Your task to perform on an android device: Open settings Image 0: 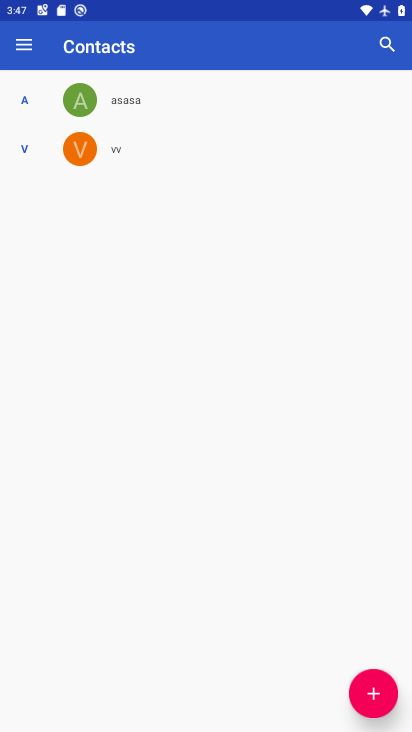
Step 0: press home button
Your task to perform on an android device: Open settings Image 1: 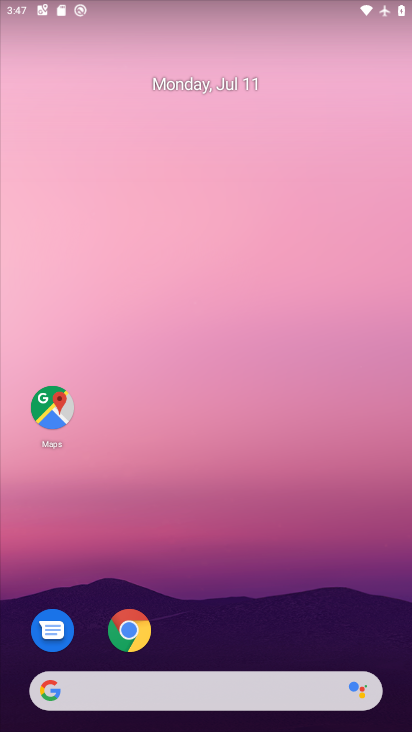
Step 1: drag from (236, 581) to (232, 71)
Your task to perform on an android device: Open settings Image 2: 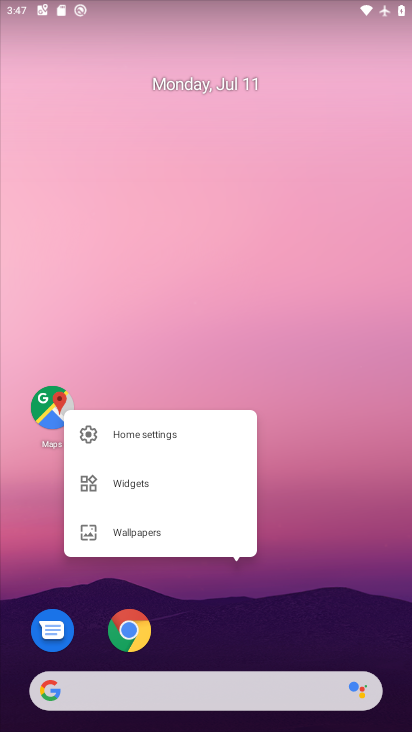
Step 2: click (249, 268)
Your task to perform on an android device: Open settings Image 3: 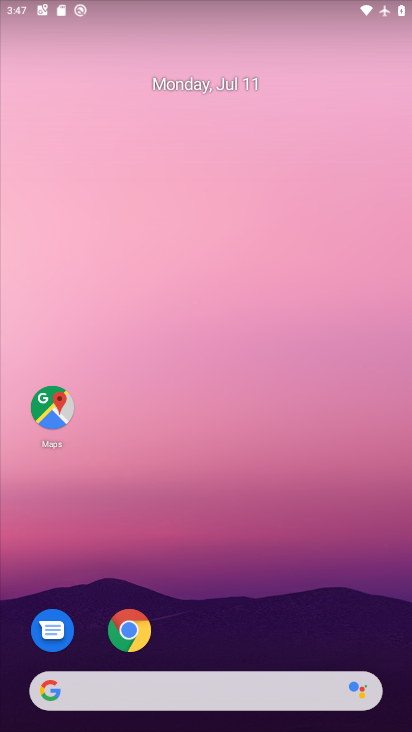
Step 3: drag from (269, 629) to (291, 17)
Your task to perform on an android device: Open settings Image 4: 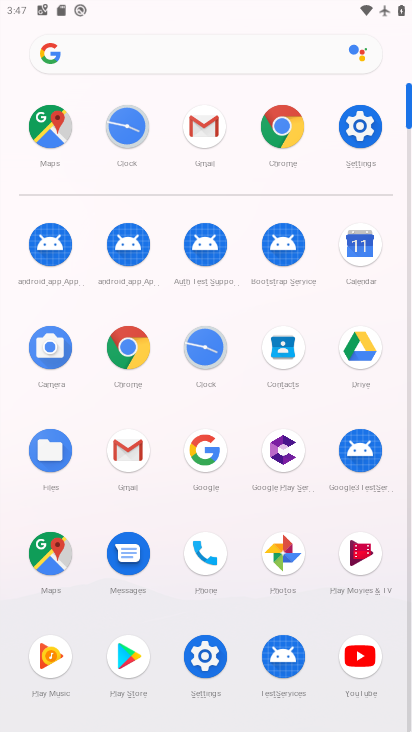
Step 4: click (363, 155)
Your task to perform on an android device: Open settings Image 5: 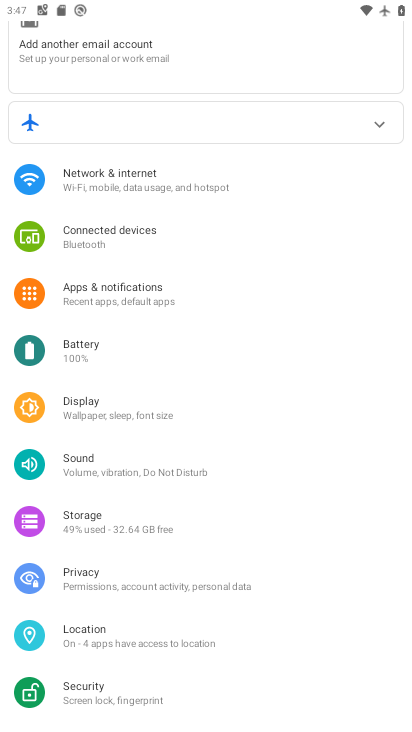
Step 5: task complete